Your task to perform on an android device: find photos in the google photos app Image 0: 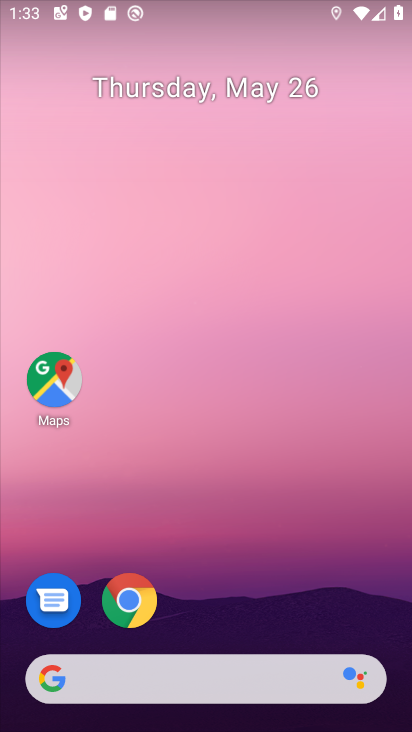
Step 0: drag from (227, 564) to (259, 104)
Your task to perform on an android device: find photos in the google photos app Image 1: 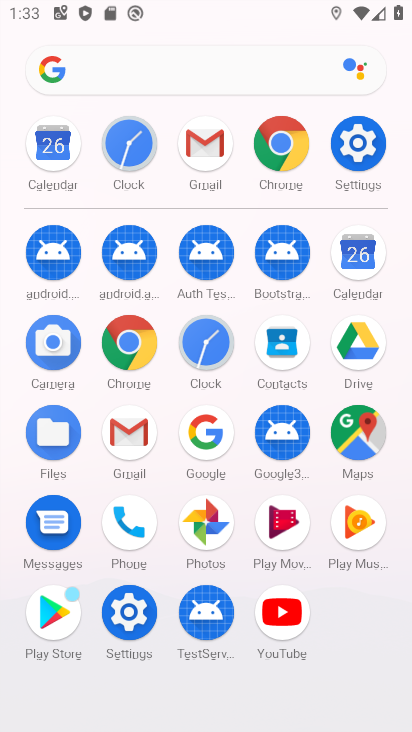
Step 1: click (194, 547)
Your task to perform on an android device: find photos in the google photos app Image 2: 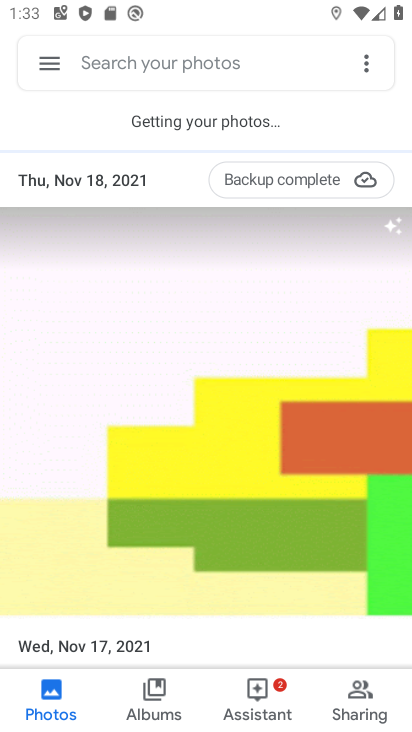
Step 2: task complete